Your task to perform on an android device: What's the weather? Image 0: 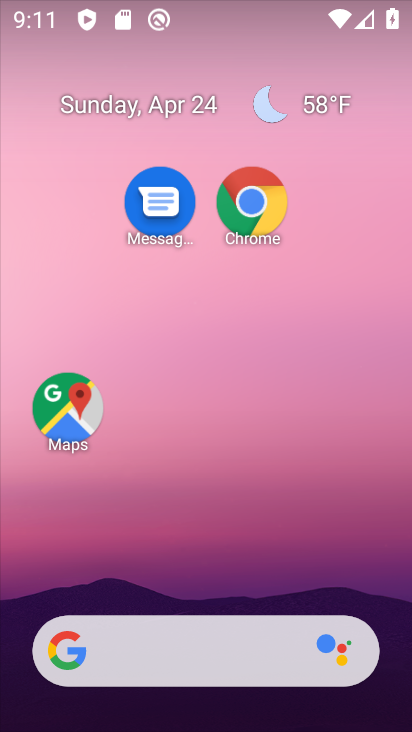
Step 0: click (261, 101)
Your task to perform on an android device: What's the weather? Image 1: 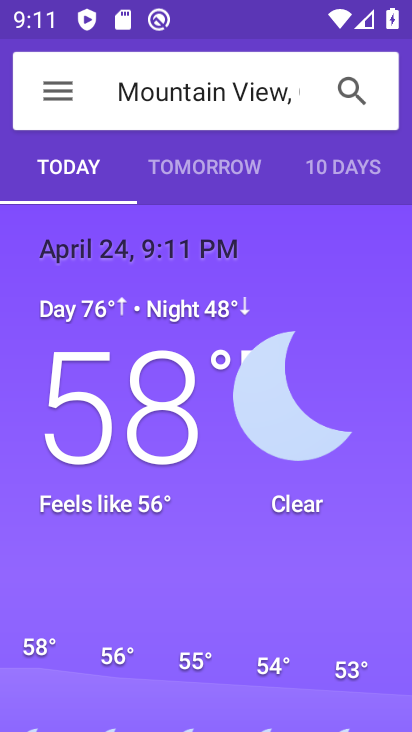
Step 1: task complete